Your task to perform on an android device: Go to ESPN.com Image 0: 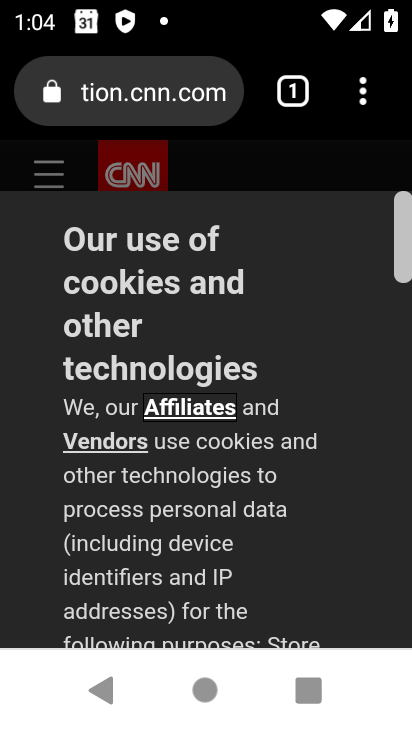
Step 0: click (98, 80)
Your task to perform on an android device: Go to ESPN.com Image 1: 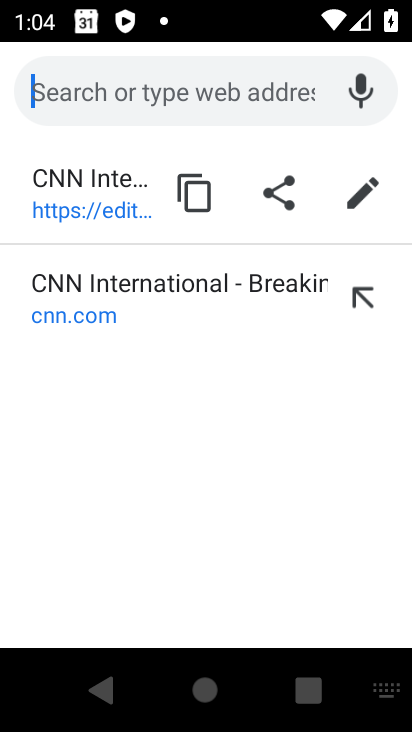
Step 1: type "ESPN.com"
Your task to perform on an android device: Go to ESPN.com Image 2: 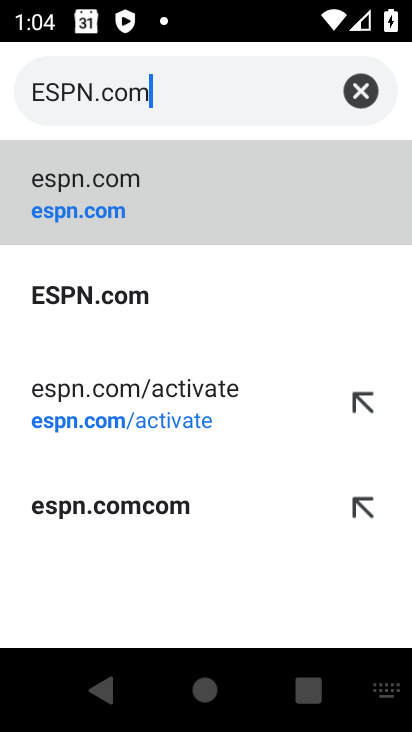
Step 2: type ""
Your task to perform on an android device: Go to ESPN.com Image 3: 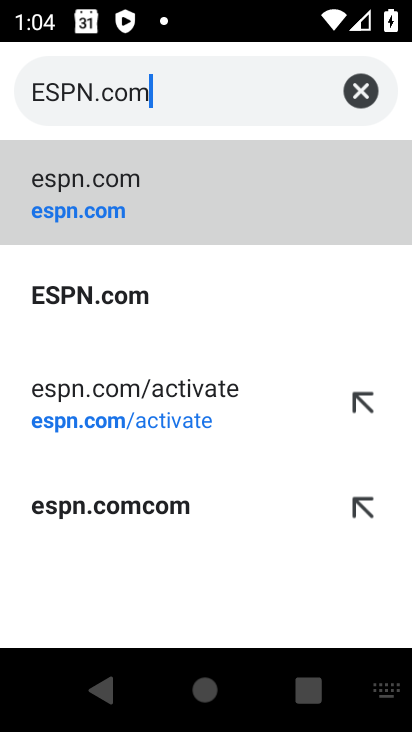
Step 3: click (156, 199)
Your task to perform on an android device: Go to ESPN.com Image 4: 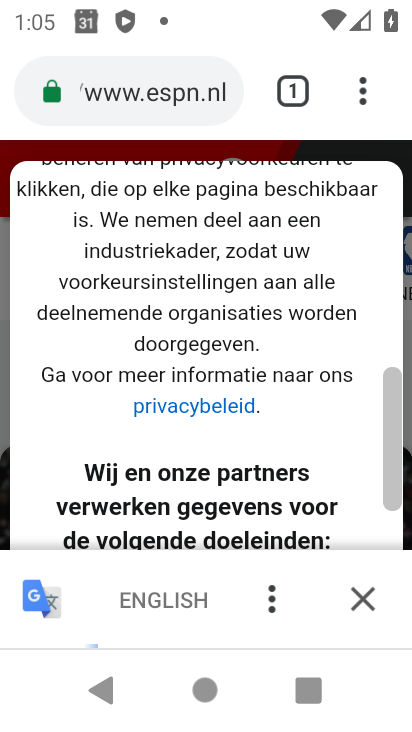
Step 4: task complete